Your task to perform on an android device: add a contact Image 0: 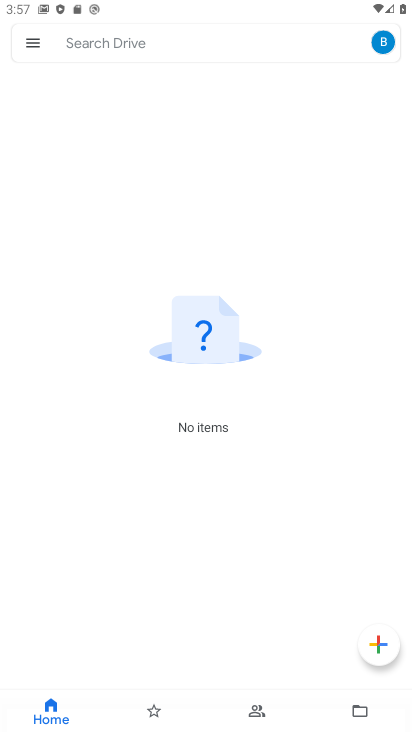
Step 0: press home button
Your task to perform on an android device: add a contact Image 1: 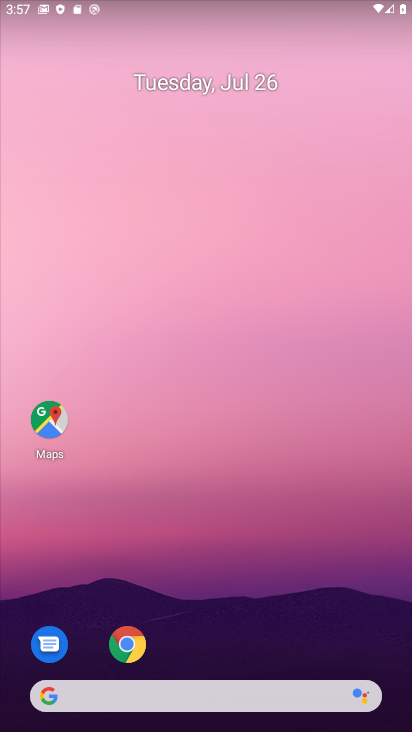
Step 1: drag from (377, 620) to (349, 177)
Your task to perform on an android device: add a contact Image 2: 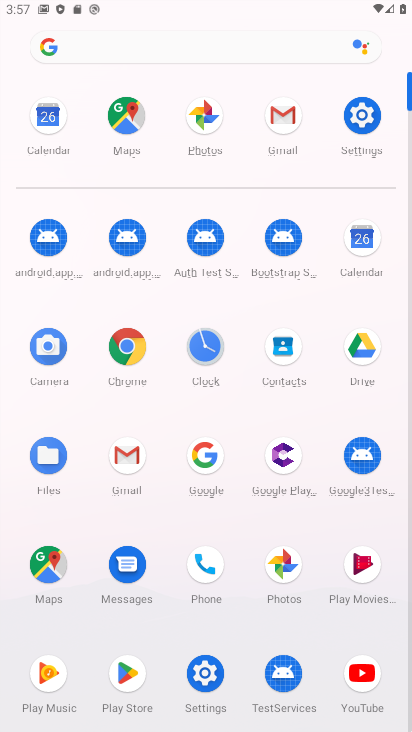
Step 2: click (281, 349)
Your task to perform on an android device: add a contact Image 3: 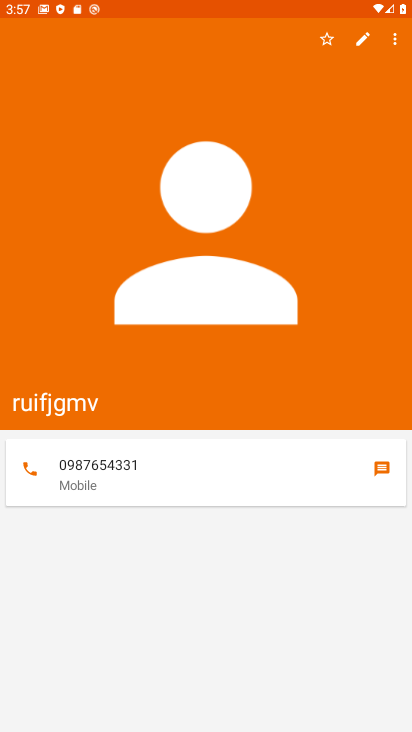
Step 3: press back button
Your task to perform on an android device: add a contact Image 4: 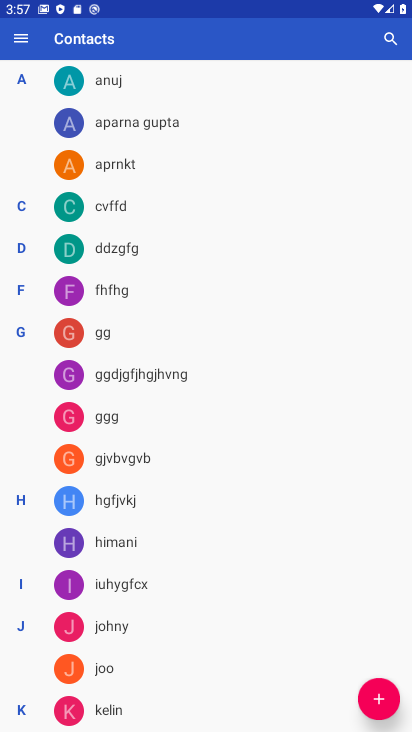
Step 4: click (377, 699)
Your task to perform on an android device: add a contact Image 5: 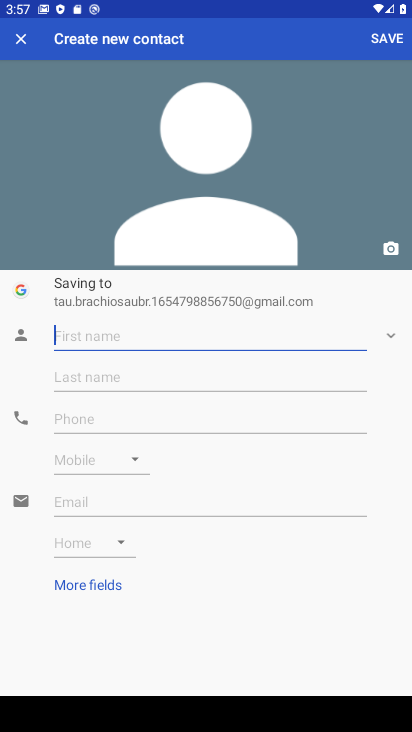
Step 5: type "ruofifop"
Your task to perform on an android device: add a contact Image 6: 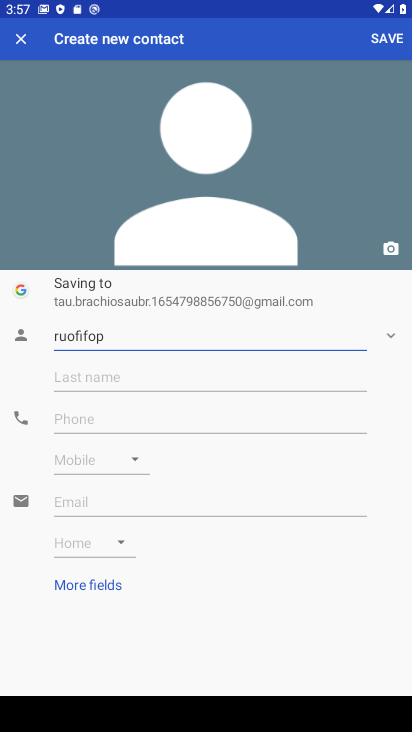
Step 6: click (97, 413)
Your task to perform on an android device: add a contact Image 7: 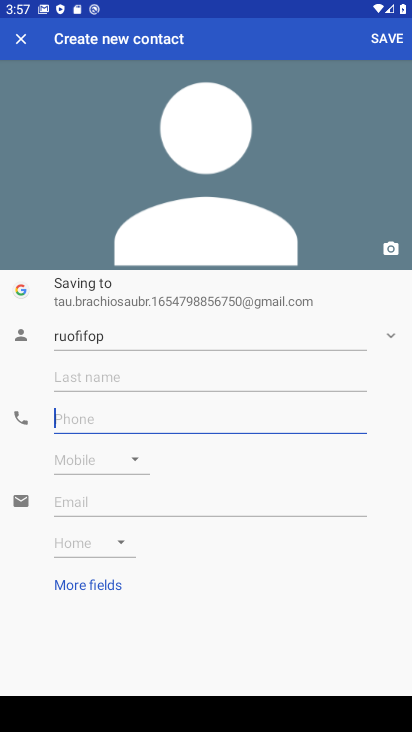
Step 7: type "09472847570"
Your task to perform on an android device: add a contact Image 8: 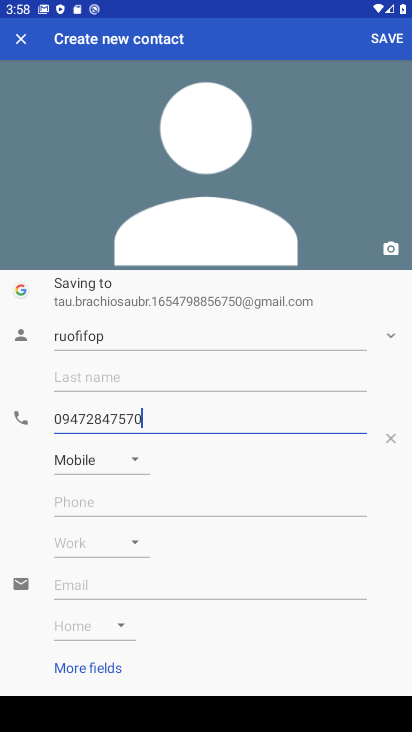
Step 8: click (129, 462)
Your task to perform on an android device: add a contact Image 9: 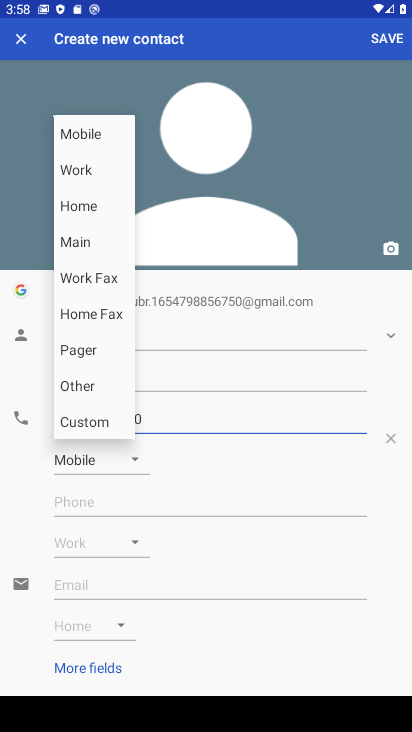
Step 9: click (391, 38)
Your task to perform on an android device: add a contact Image 10: 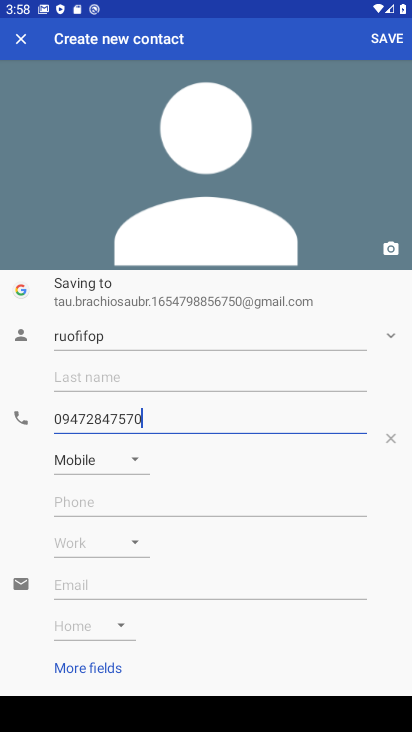
Step 10: click (375, 38)
Your task to perform on an android device: add a contact Image 11: 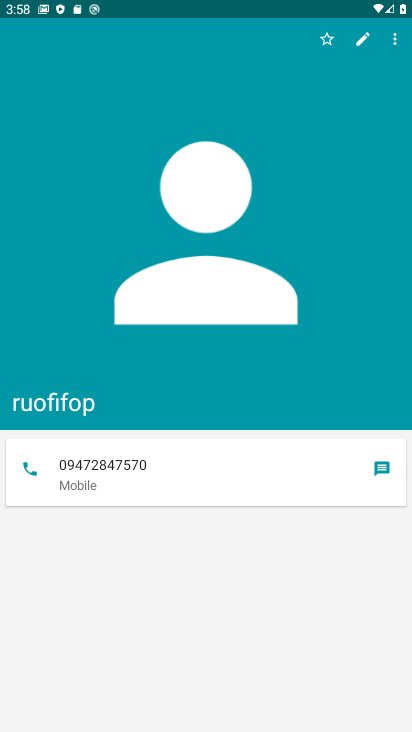
Step 11: task complete